Your task to perform on an android device: set the stopwatch Image 0: 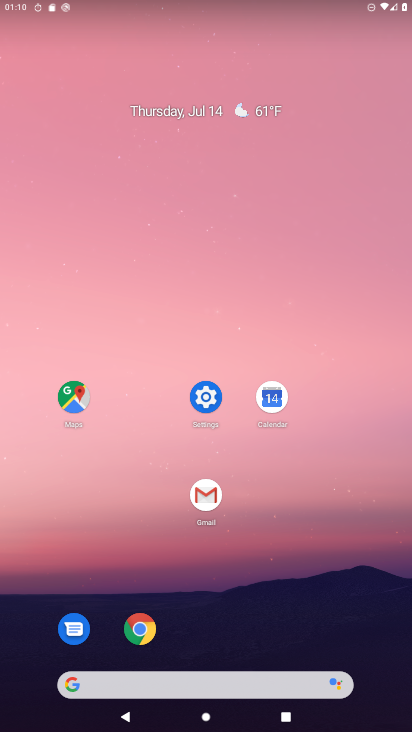
Step 0: click (213, 404)
Your task to perform on an android device: set the stopwatch Image 1: 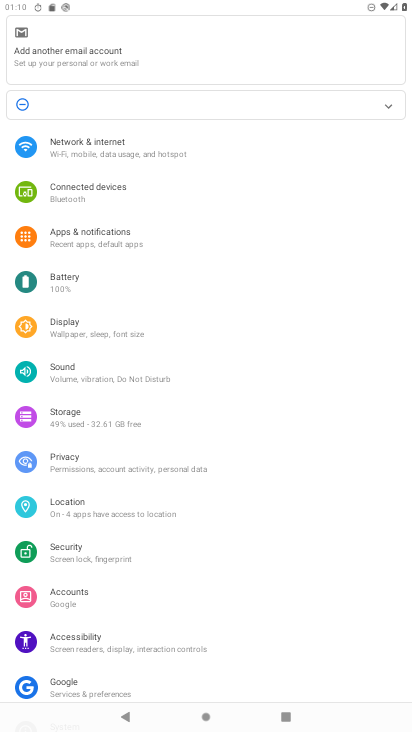
Step 1: press home button
Your task to perform on an android device: set the stopwatch Image 2: 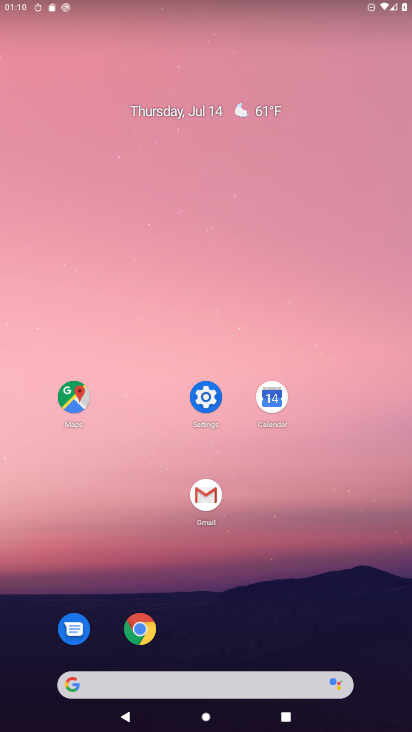
Step 2: drag from (384, 584) to (332, 182)
Your task to perform on an android device: set the stopwatch Image 3: 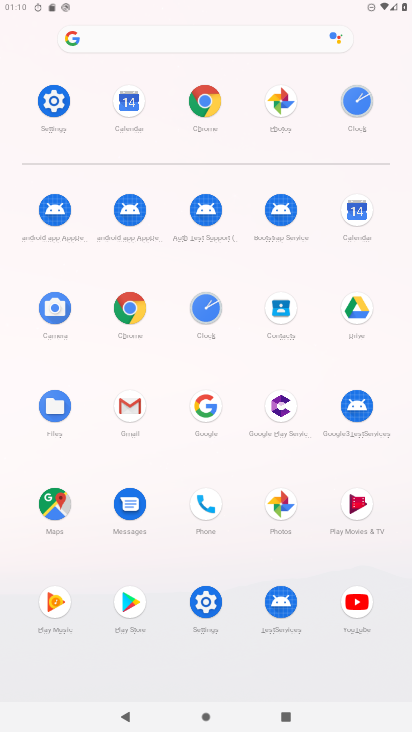
Step 3: click (207, 308)
Your task to perform on an android device: set the stopwatch Image 4: 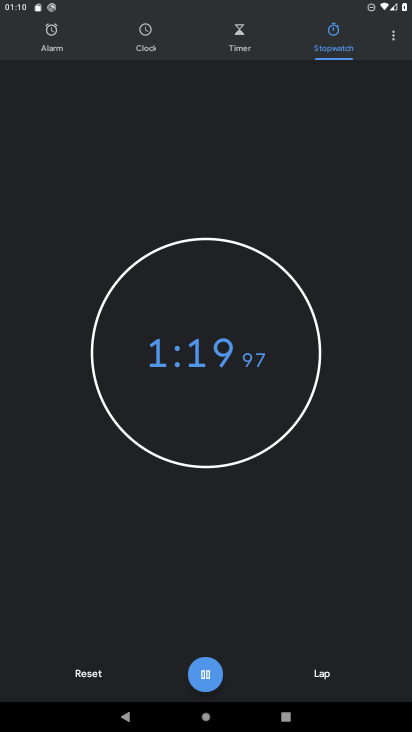
Step 4: click (98, 669)
Your task to perform on an android device: set the stopwatch Image 5: 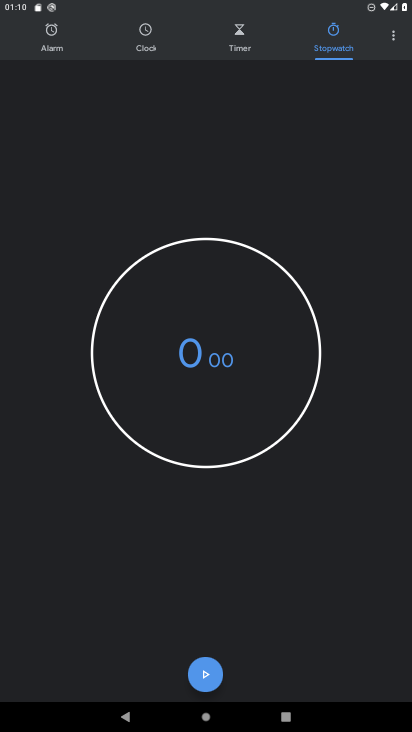
Step 5: click (203, 671)
Your task to perform on an android device: set the stopwatch Image 6: 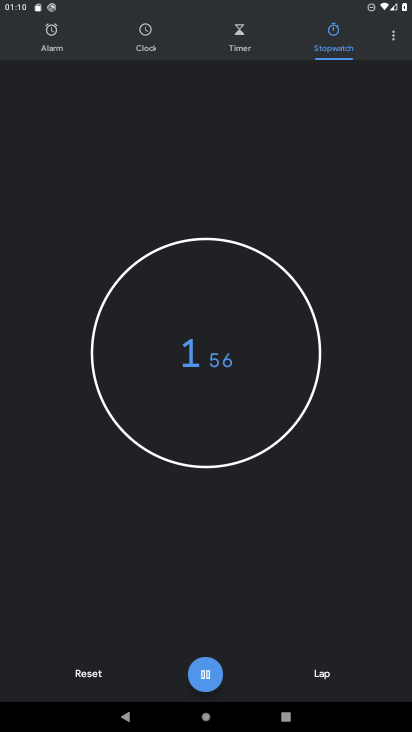
Step 6: task complete